Your task to perform on an android device: manage bookmarks in the chrome app Image 0: 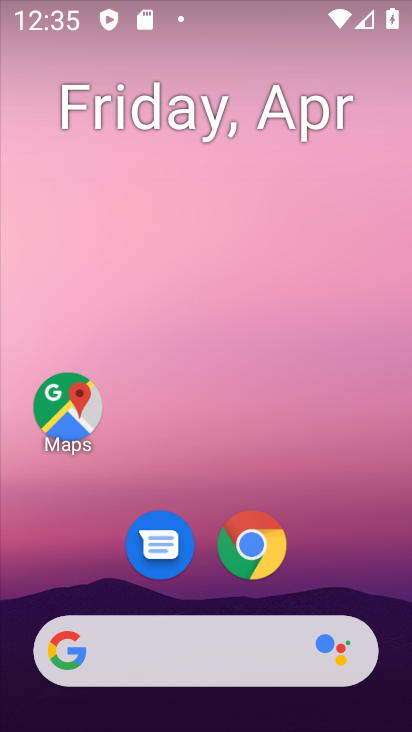
Step 0: click (259, 555)
Your task to perform on an android device: manage bookmarks in the chrome app Image 1: 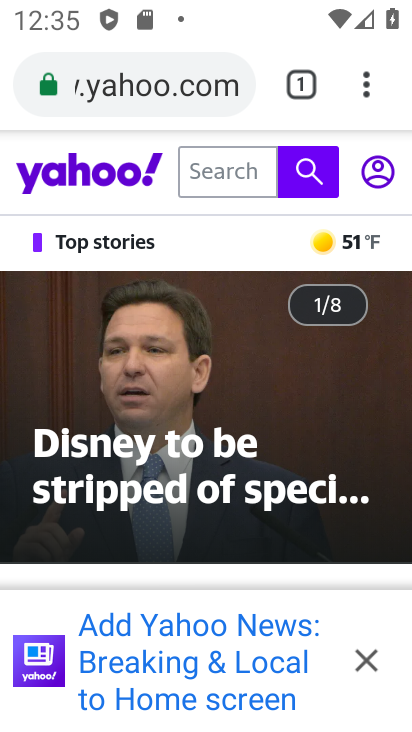
Step 1: click (371, 79)
Your task to perform on an android device: manage bookmarks in the chrome app Image 2: 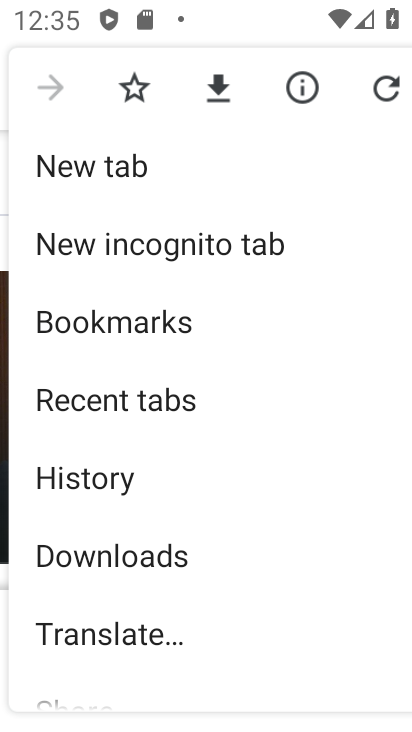
Step 2: click (150, 326)
Your task to perform on an android device: manage bookmarks in the chrome app Image 3: 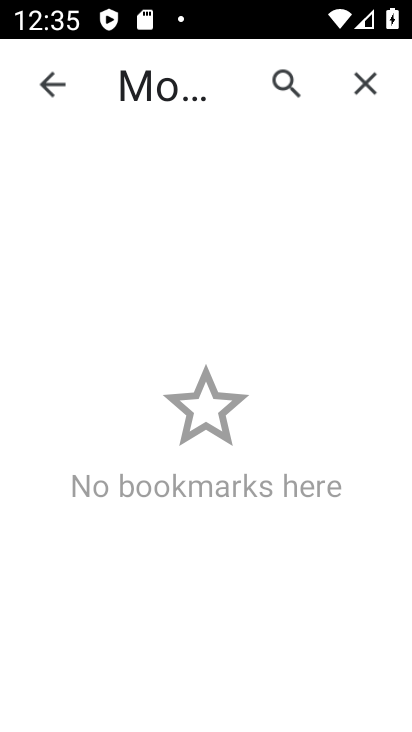
Step 3: task complete